Your task to perform on an android device: Open Google Maps and go to "Timeline" Image 0: 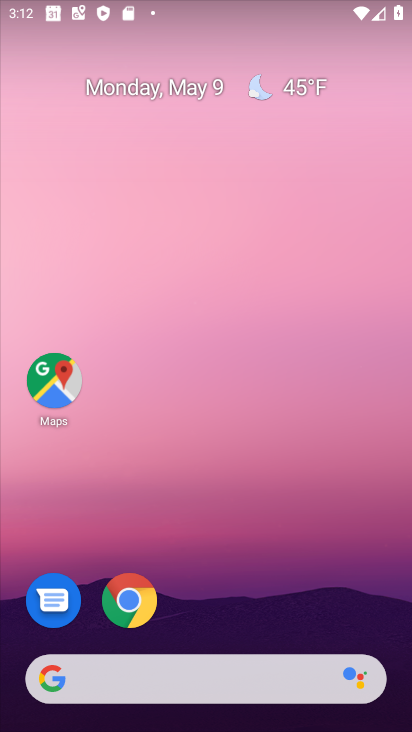
Step 0: drag from (282, 471) to (205, 42)
Your task to perform on an android device: Open Google Maps and go to "Timeline" Image 1: 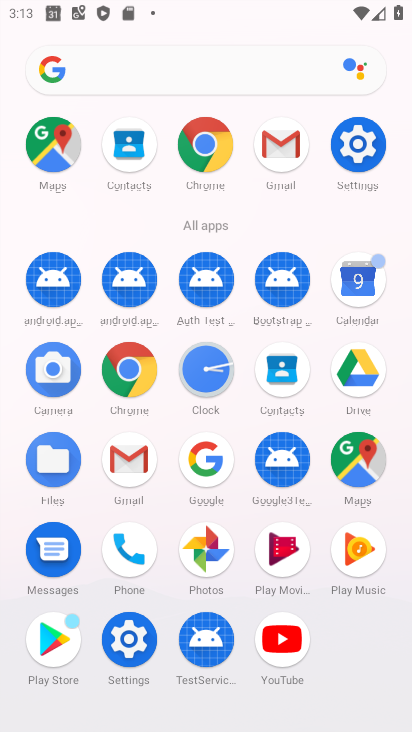
Step 1: drag from (12, 540) to (4, 213)
Your task to perform on an android device: Open Google Maps and go to "Timeline" Image 2: 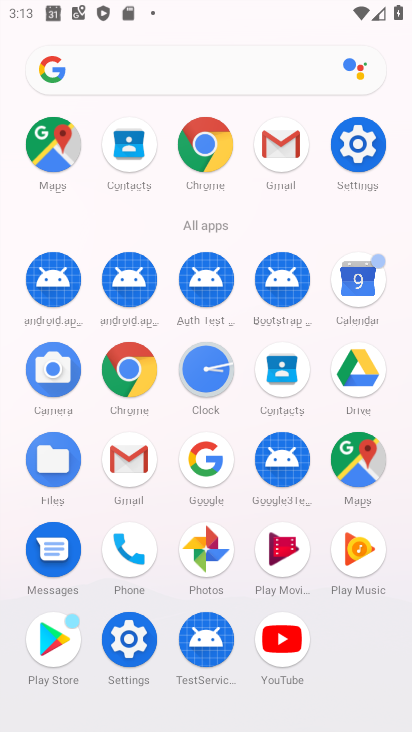
Step 2: drag from (4, 614) to (15, 390)
Your task to perform on an android device: Open Google Maps and go to "Timeline" Image 3: 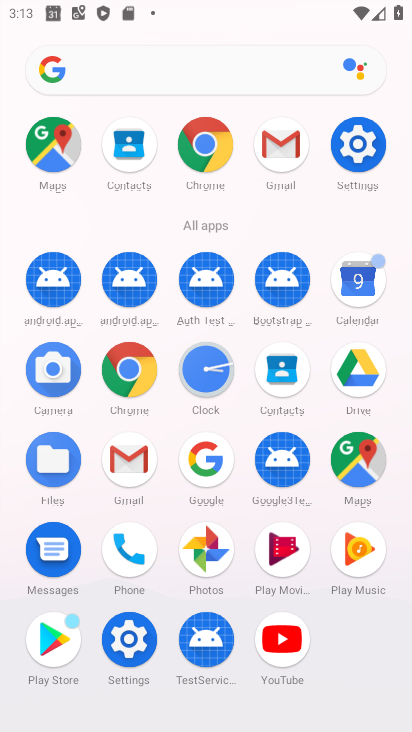
Step 3: click (364, 459)
Your task to perform on an android device: Open Google Maps and go to "Timeline" Image 4: 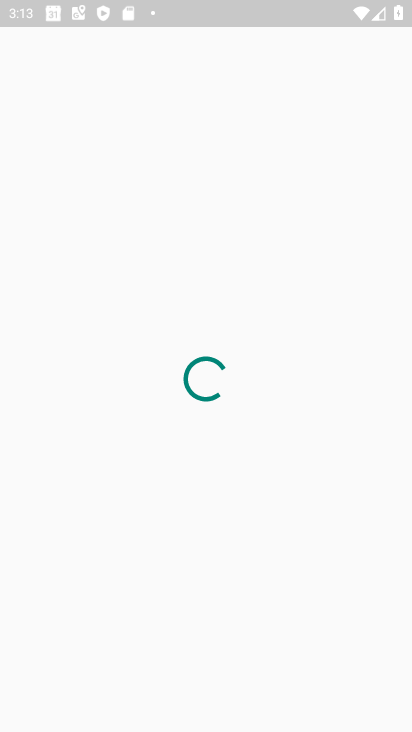
Step 4: click (28, 64)
Your task to perform on an android device: Open Google Maps and go to "Timeline" Image 5: 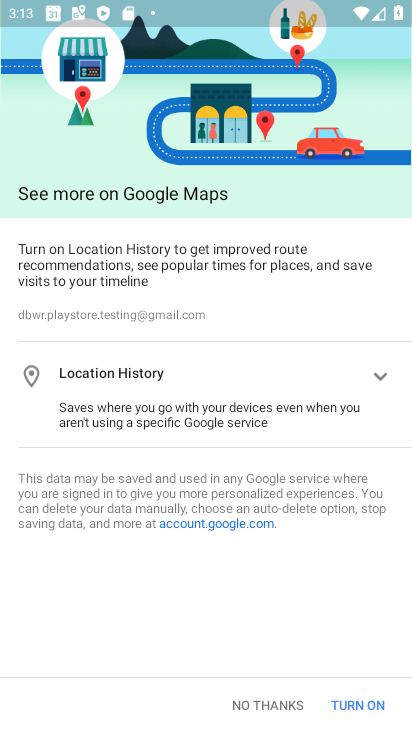
Step 5: click (378, 718)
Your task to perform on an android device: Open Google Maps and go to "Timeline" Image 6: 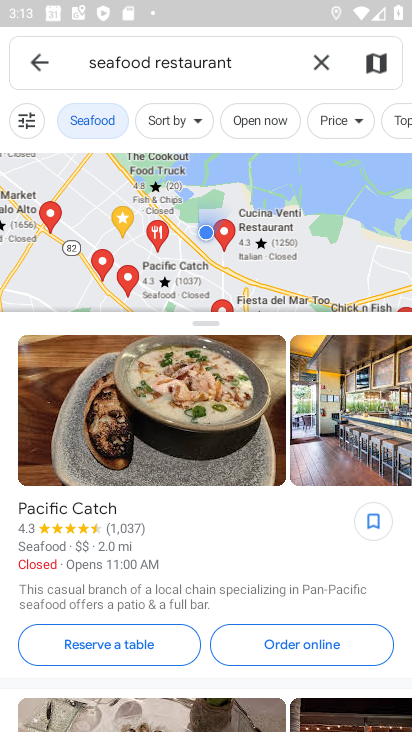
Step 6: click (25, 45)
Your task to perform on an android device: Open Google Maps and go to "Timeline" Image 7: 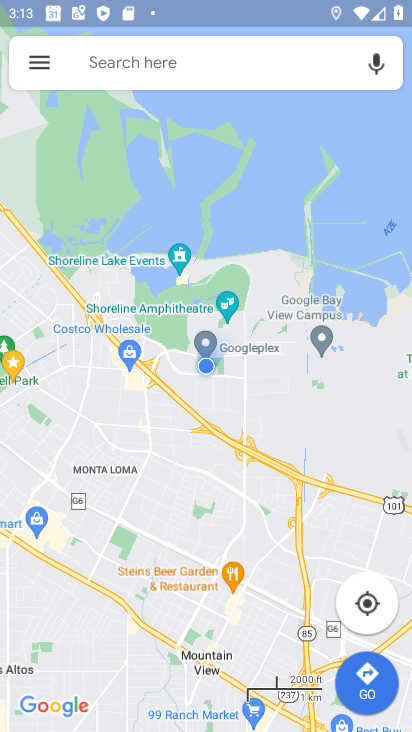
Step 7: click (32, 55)
Your task to perform on an android device: Open Google Maps and go to "Timeline" Image 8: 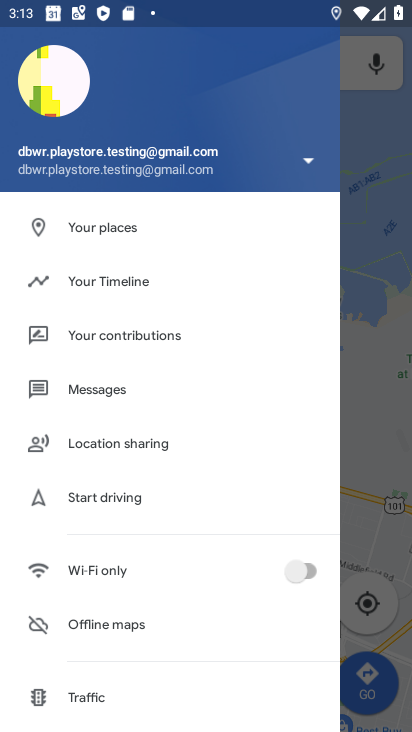
Step 8: drag from (178, 558) to (211, 115)
Your task to perform on an android device: Open Google Maps and go to "Timeline" Image 9: 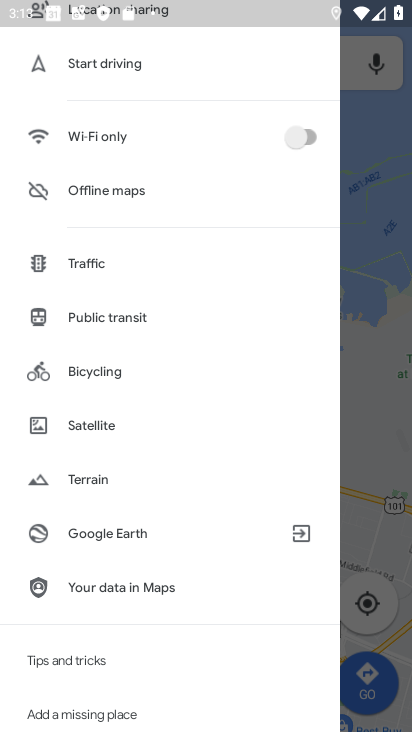
Step 9: drag from (136, 628) to (162, 107)
Your task to perform on an android device: Open Google Maps and go to "Timeline" Image 10: 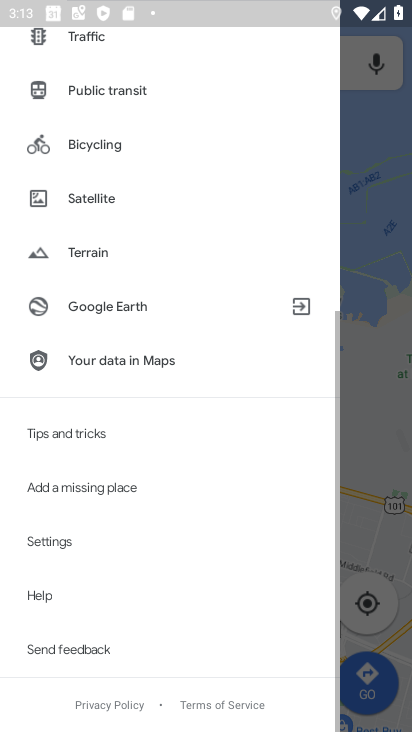
Step 10: click (80, 543)
Your task to perform on an android device: Open Google Maps and go to "Timeline" Image 11: 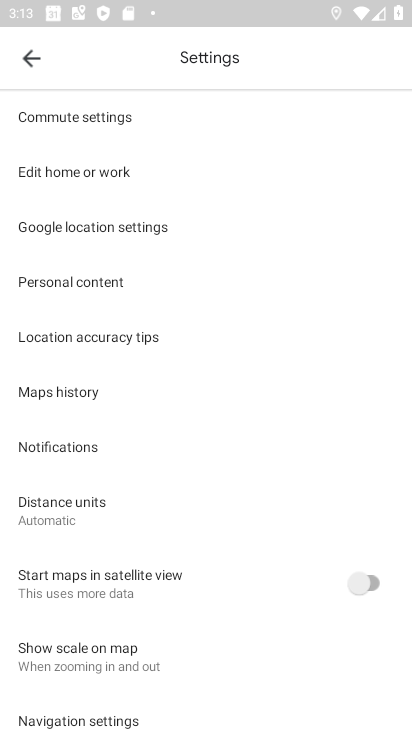
Step 11: drag from (184, 597) to (258, 105)
Your task to perform on an android device: Open Google Maps and go to "Timeline" Image 12: 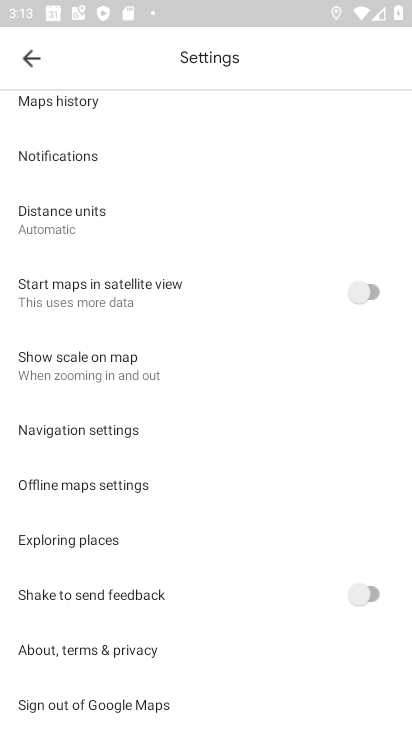
Step 12: drag from (215, 606) to (264, 192)
Your task to perform on an android device: Open Google Maps and go to "Timeline" Image 13: 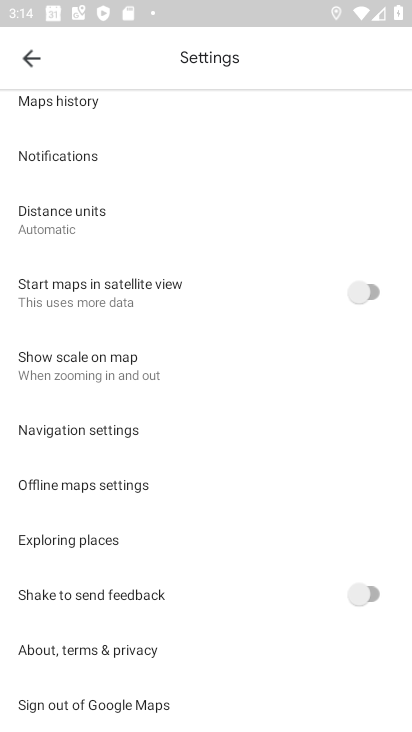
Step 13: drag from (215, 549) to (247, 127)
Your task to perform on an android device: Open Google Maps and go to "Timeline" Image 14: 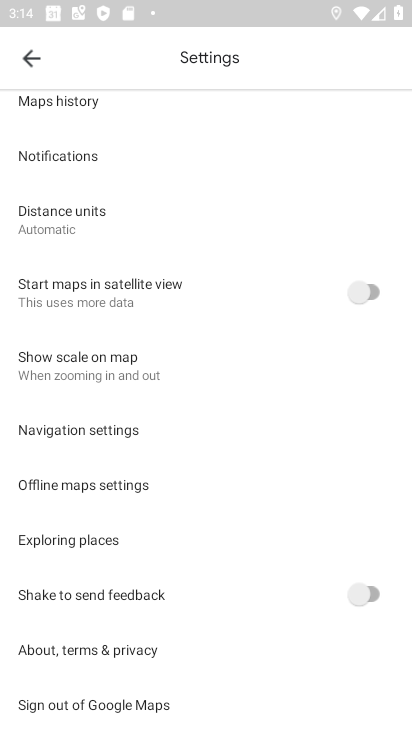
Step 14: drag from (219, 269) to (192, 603)
Your task to perform on an android device: Open Google Maps and go to "Timeline" Image 15: 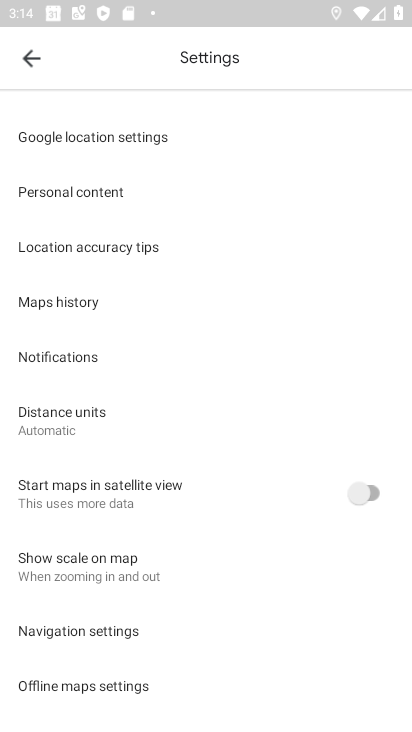
Step 15: drag from (213, 598) to (208, 120)
Your task to perform on an android device: Open Google Maps and go to "Timeline" Image 16: 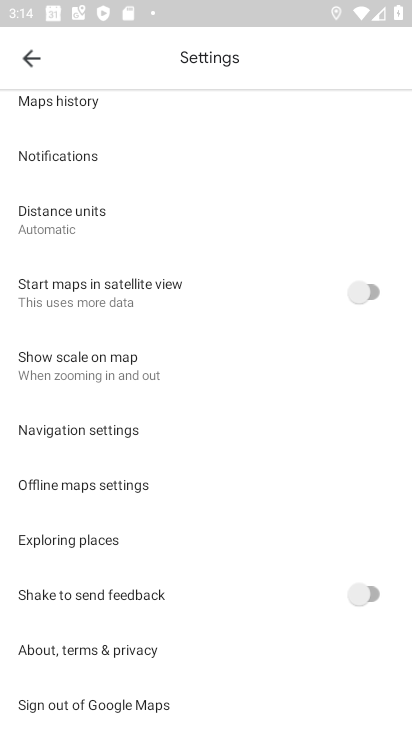
Step 16: drag from (206, 211) to (213, 510)
Your task to perform on an android device: Open Google Maps and go to "Timeline" Image 17: 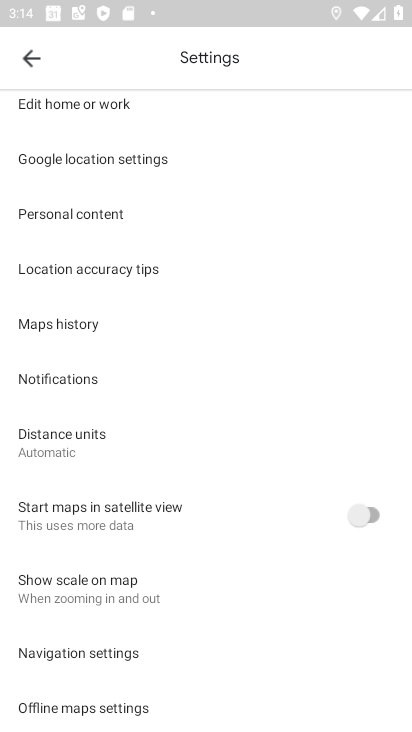
Step 17: click (30, 59)
Your task to perform on an android device: Open Google Maps and go to "Timeline" Image 18: 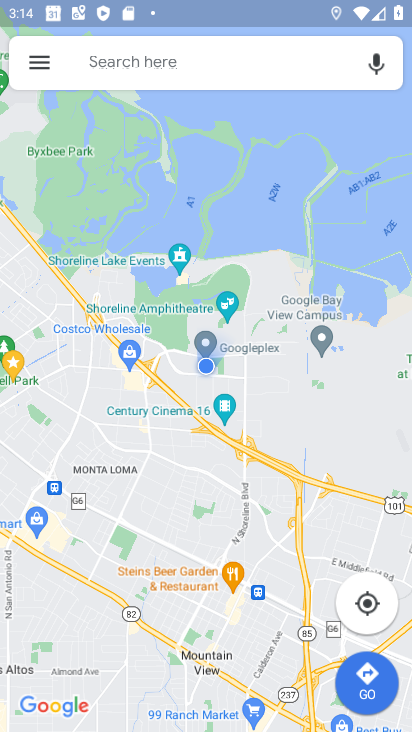
Step 18: click (30, 59)
Your task to perform on an android device: Open Google Maps and go to "Timeline" Image 19: 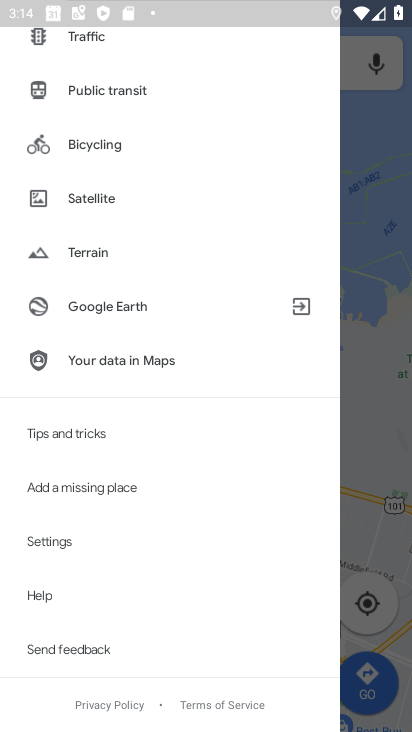
Step 19: drag from (160, 238) to (168, 669)
Your task to perform on an android device: Open Google Maps and go to "Timeline" Image 20: 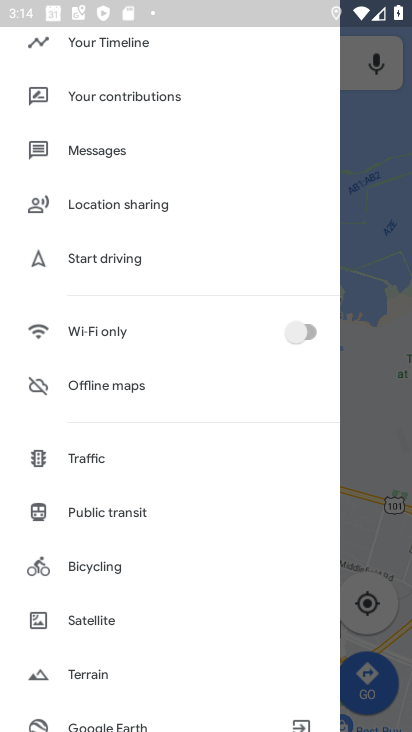
Step 20: drag from (185, 194) to (172, 454)
Your task to perform on an android device: Open Google Maps and go to "Timeline" Image 21: 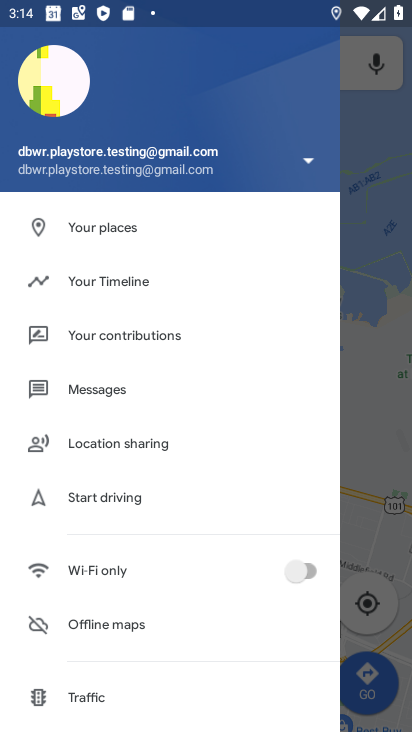
Step 21: click (109, 276)
Your task to perform on an android device: Open Google Maps and go to "Timeline" Image 22: 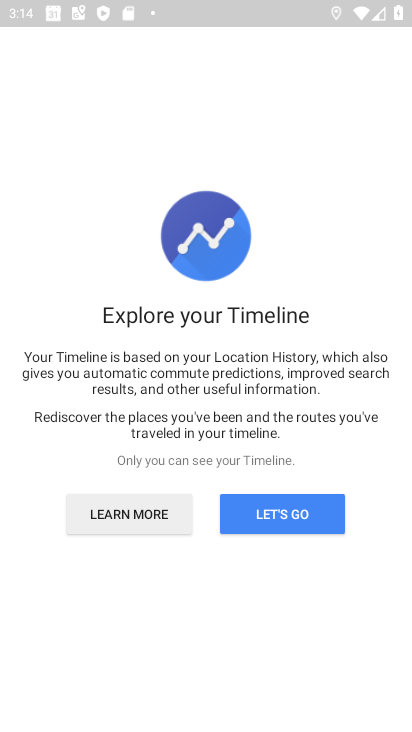
Step 22: click (297, 518)
Your task to perform on an android device: Open Google Maps and go to "Timeline" Image 23: 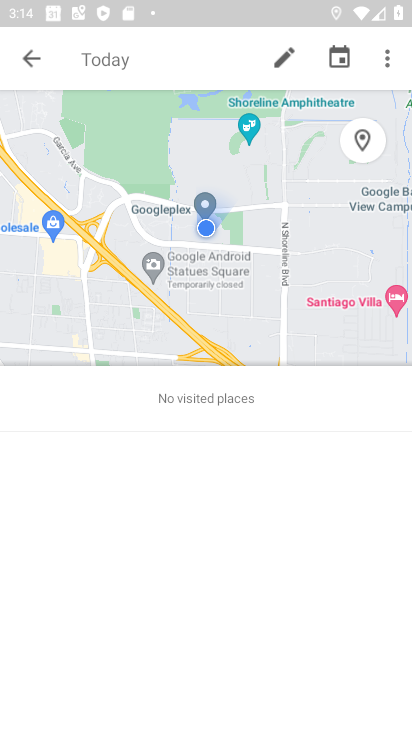
Step 23: task complete